Your task to perform on an android device: read, delete, or share a saved page in the chrome app Image 0: 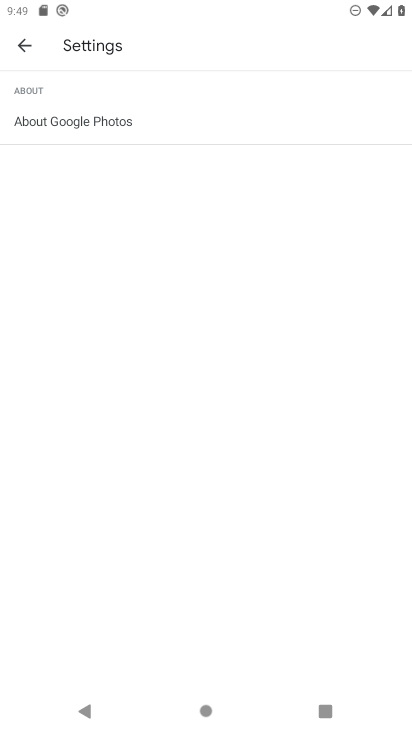
Step 0: press home button
Your task to perform on an android device: read, delete, or share a saved page in the chrome app Image 1: 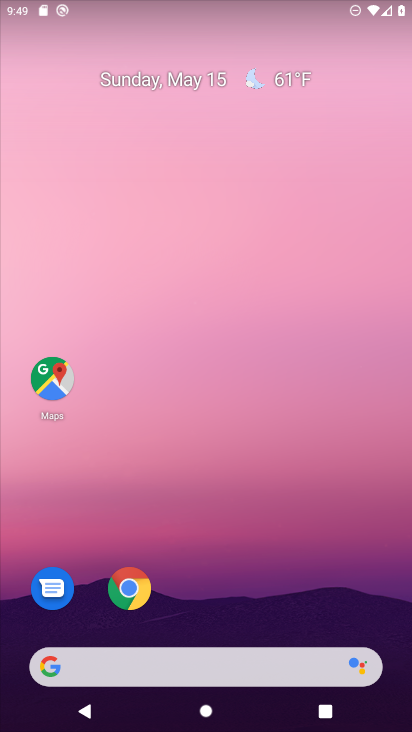
Step 1: click (144, 588)
Your task to perform on an android device: read, delete, or share a saved page in the chrome app Image 2: 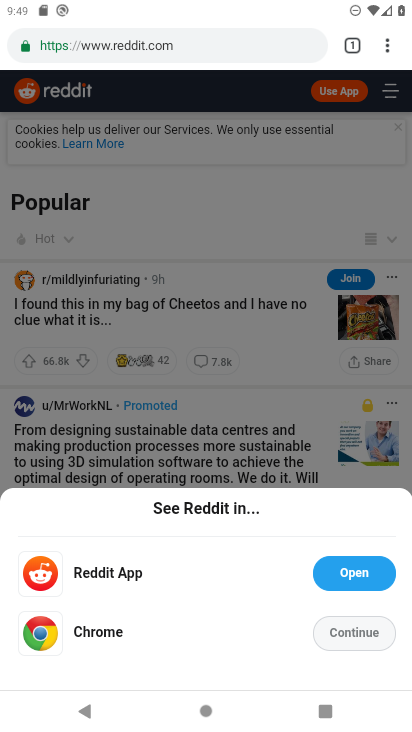
Step 2: click (389, 50)
Your task to perform on an android device: read, delete, or share a saved page in the chrome app Image 3: 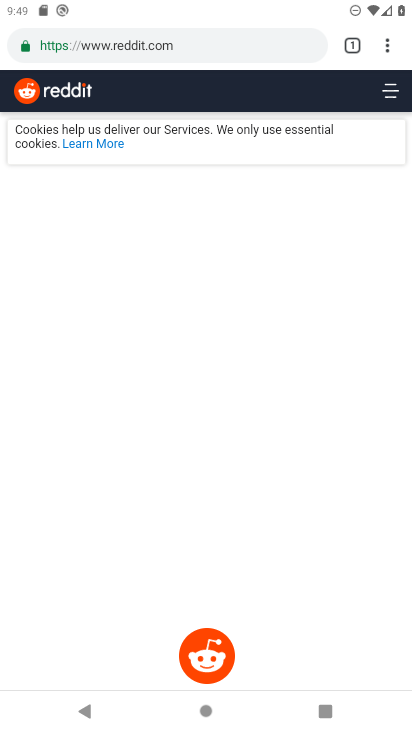
Step 3: click (387, 42)
Your task to perform on an android device: read, delete, or share a saved page in the chrome app Image 4: 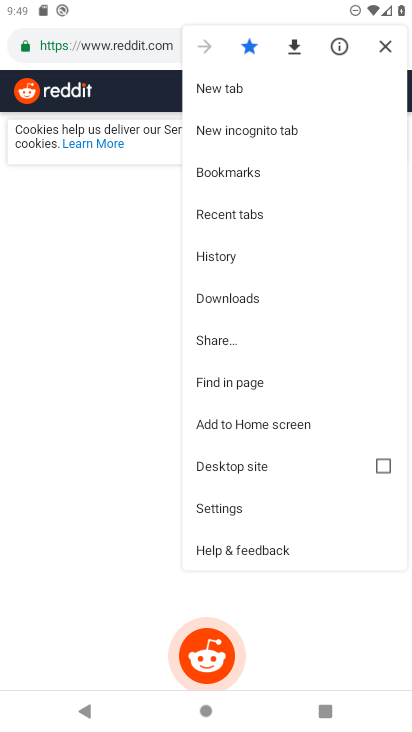
Step 4: click (232, 511)
Your task to perform on an android device: read, delete, or share a saved page in the chrome app Image 5: 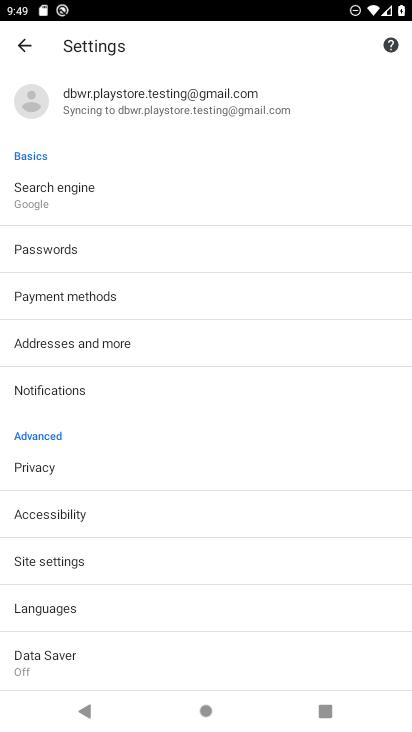
Step 5: click (26, 51)
Your task to perform on an android device: read, delete, or share a saved page in the chrome app Image 6: 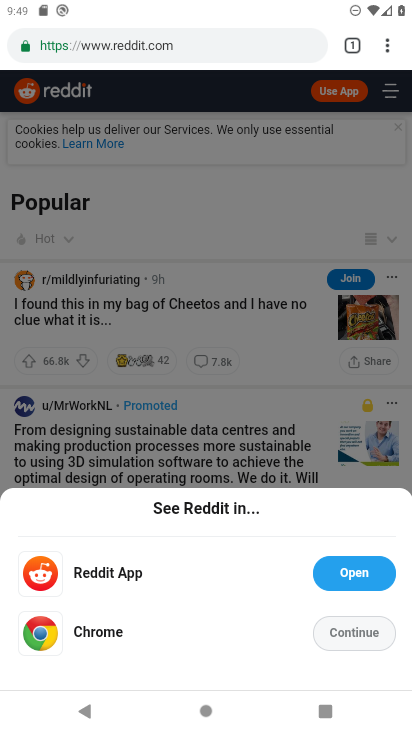
Step 6: click (379, 47)
Your task to perform on an android device: read, delete, or share a saved page in the chrome app Image 7: 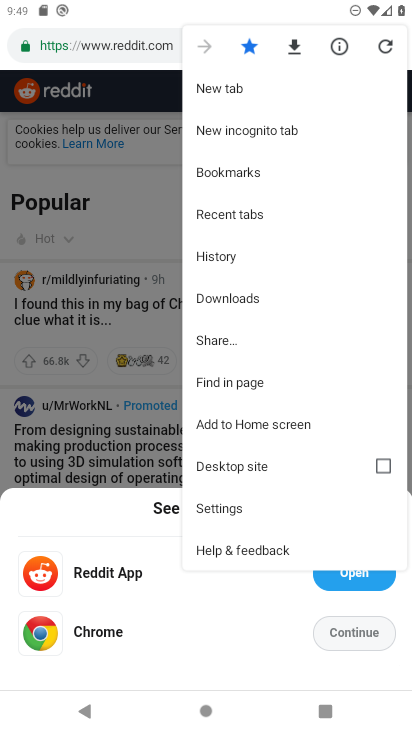
Step 7: click (254, 298)
Your task to perform on an android device: read, delete, or share a saved page in the chrome app Image 8: 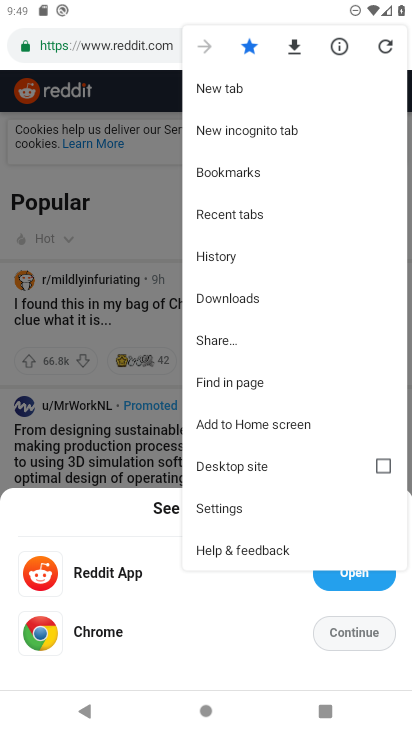
Step 8: click (248, 302)
Your task to perform on an android device: read, delete, or share a saved page in the chrome app Image 9: 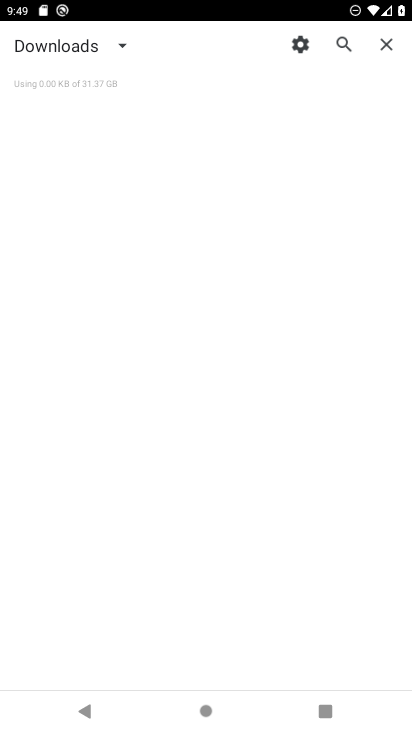
Step 9: task complete